Your task to perform on an android device: turn on sleep mode Image 0: 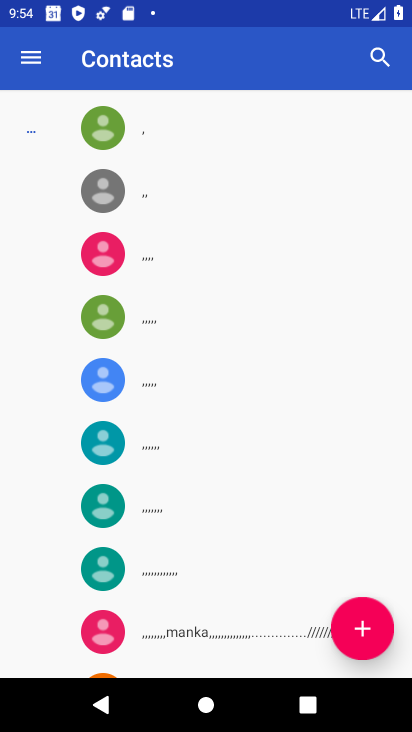
Step 0: press home button
Your task to perform on an android device: turn on sleep mode Image 1: 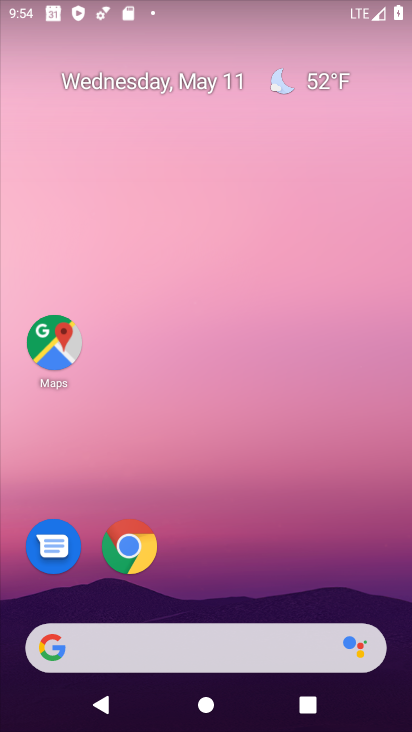
Step 1: drag from (235, 639) to (168, 116)
Your task to perform on an android device: turn on sleep mode Image 2: 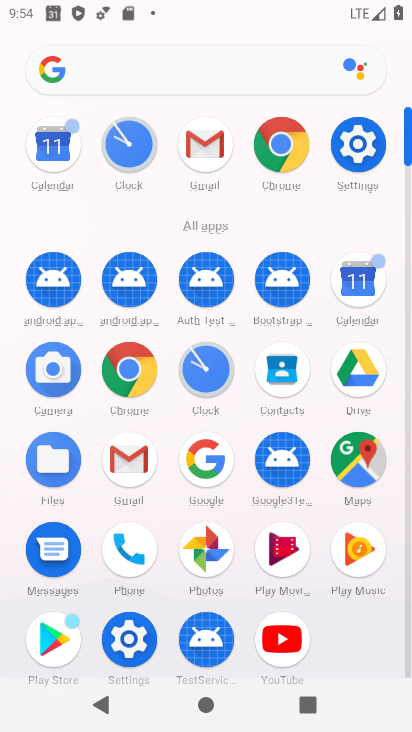
Step 2: click (121, 663)
Your task to perform on an android device: turn on sleep mode Image 3: 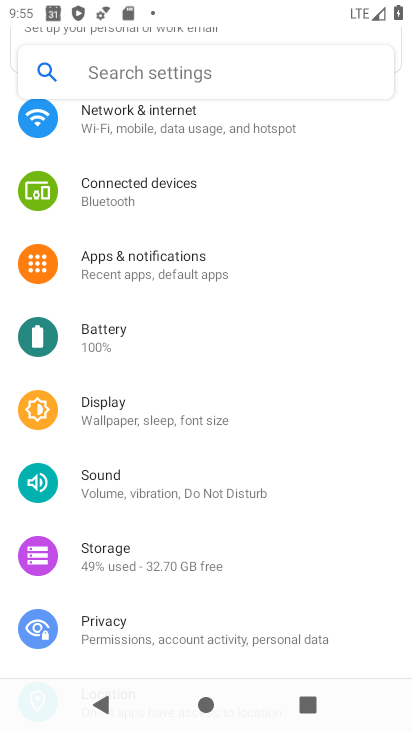
Step 3: click (109, 412)
Your task to perform on an android device: turn on sleep mode Image 4: 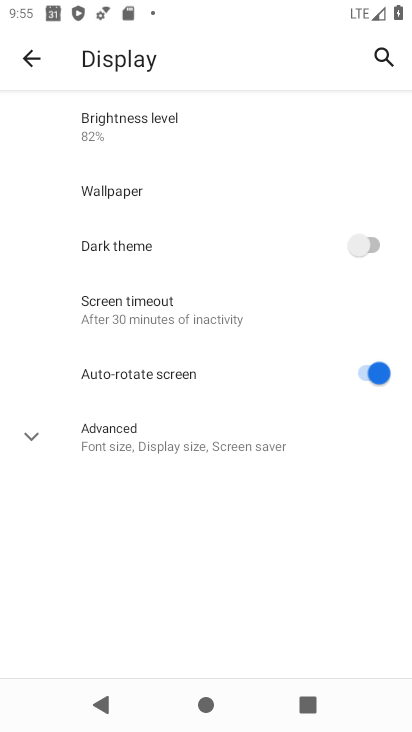
Step 4: click (132, 444)
Your task to perform on an android device: turn on sleep mode Image 5: 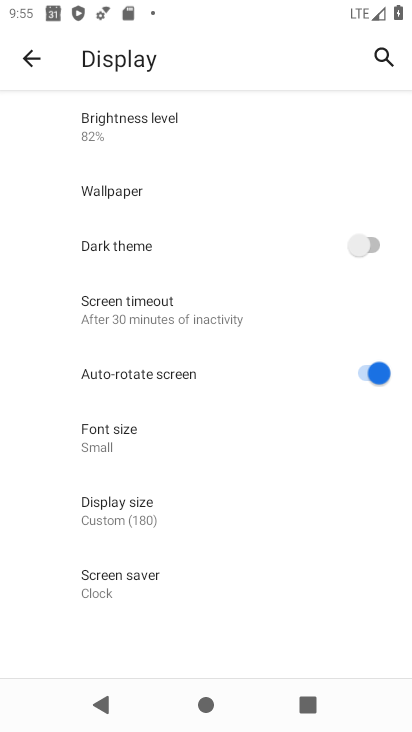
Step 5: task complete